Your task to perform on an android device: turn off sleep mode Image 0: 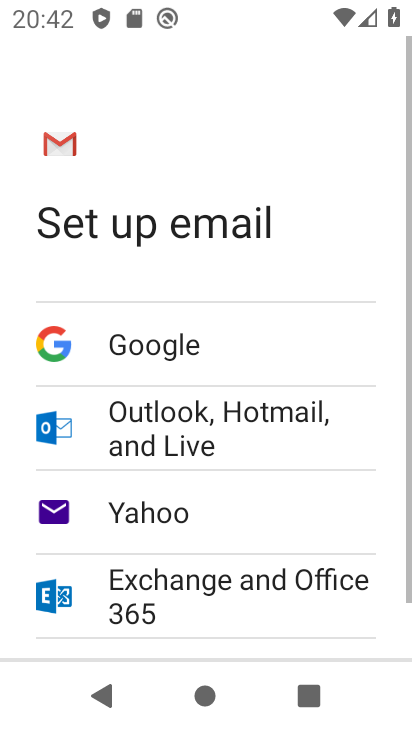
Step 0: press home button
Your task to perform on an android device: turn off sleep mode Image 1: 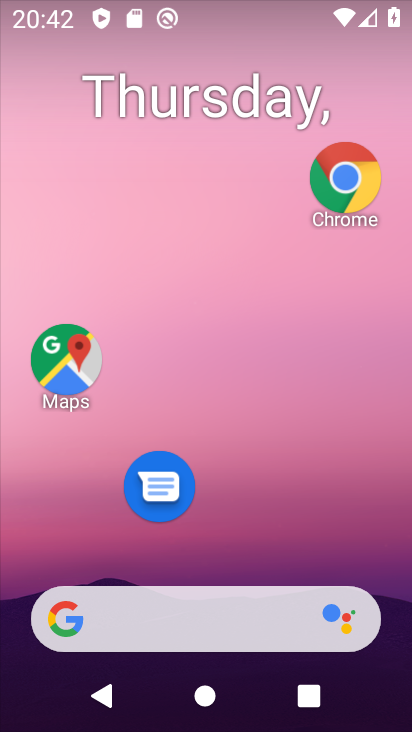
Step 1: drag from (238, 578) to (210, 4)
Your task to perform on an android device: turn off sleep mode Image 2: 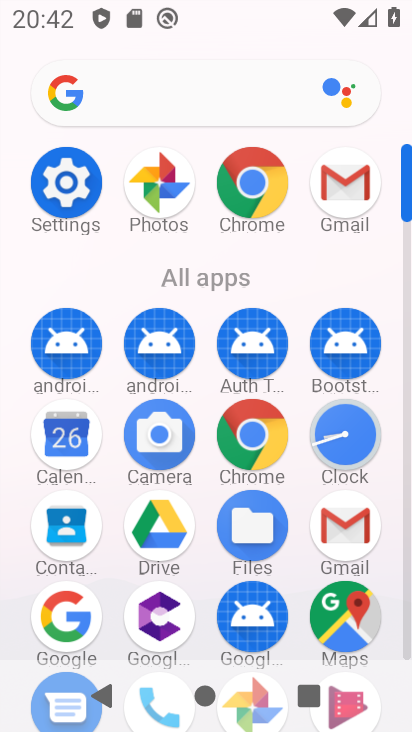
Step 2: click (81, 174)
Your task to perform on an android device: turn off sleep mode Image 3: 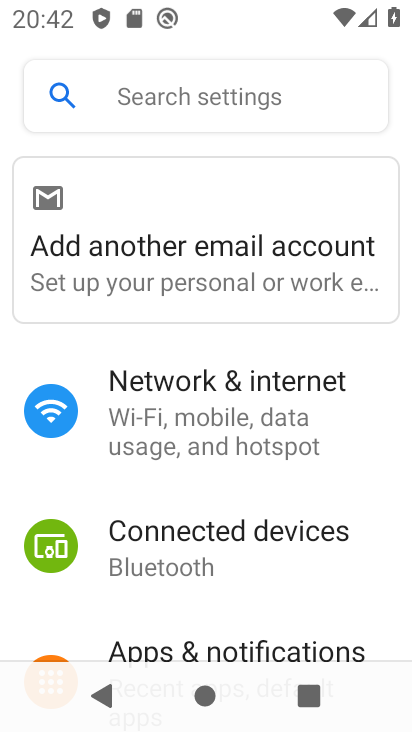
Step 3: drag from (169, 495) to (89, 108)
Your task to perform on an android device: turn off sleep mode Image 4: 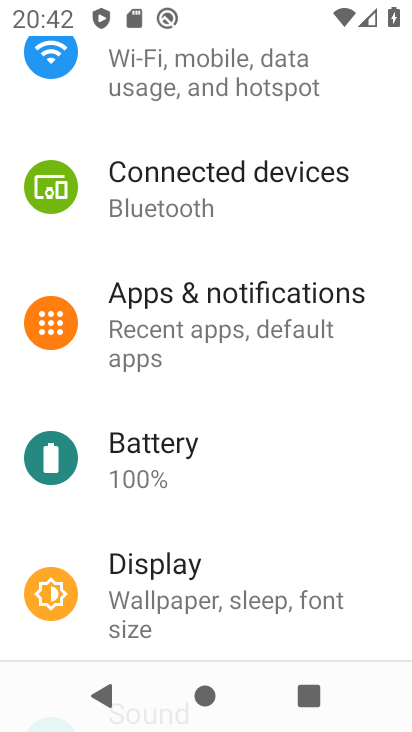
Step 4: click (168, 551)
Your task to perform on an android device: turn off sleep mode Image 5: 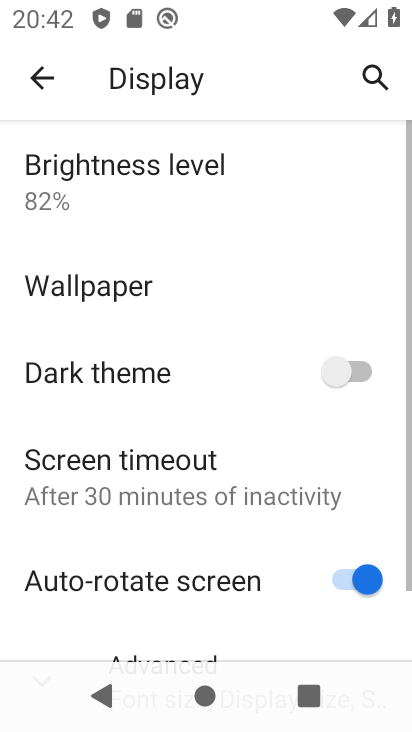
Step 5: task complete